Your task to perform on an android device: set the stopwatch Image 0: 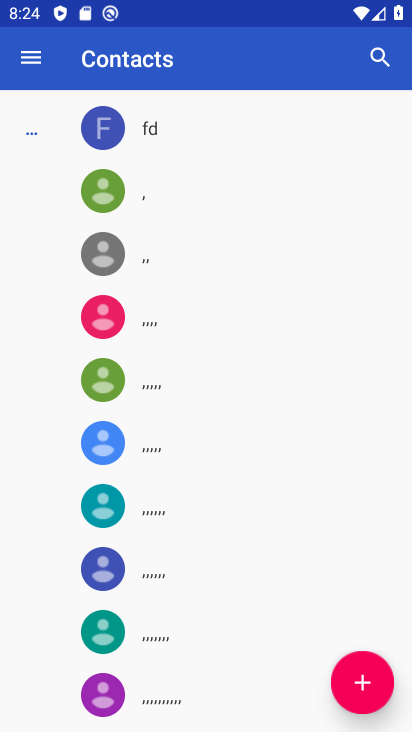
Step 0: press home button
Your task to perform on an android device: set the stopwatch Image 1: 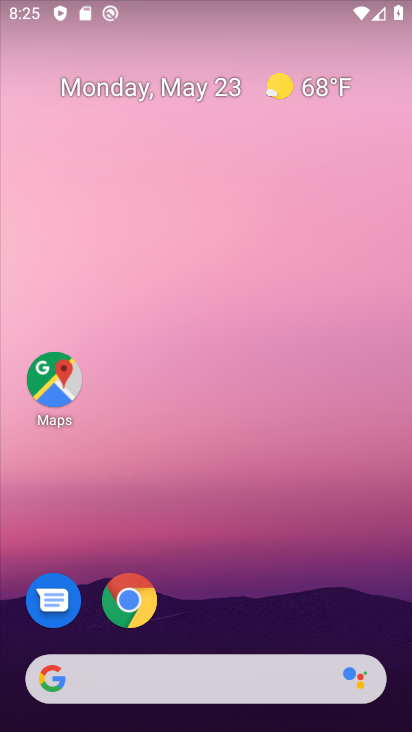
Step 1: drag from (45, 550) to (244, 145)
Your task to perform on an android device: set the stopwatch Image 2: 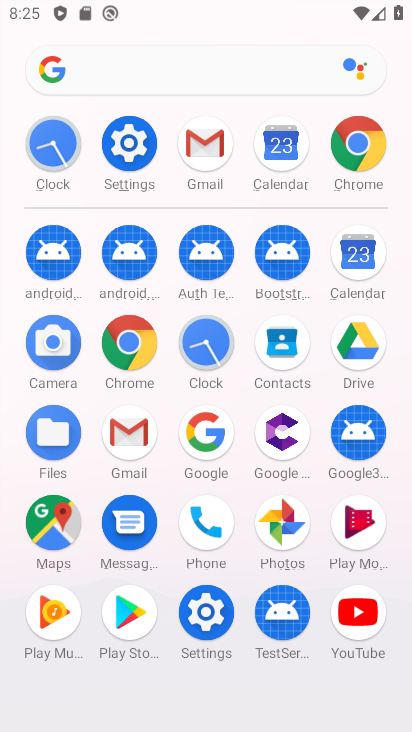
Step 2: click (43, 150)
Your task to perform on an android device: set the stopwatch Image 3: 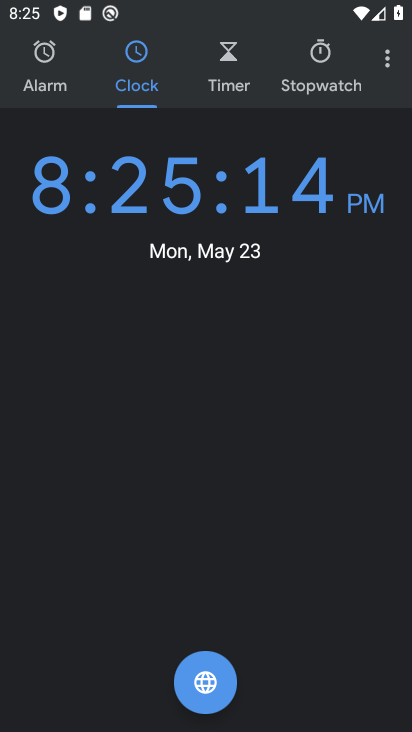
Step 3: click (309, 54)
Your task to perform on an android device: set the stopwatch Image 4: 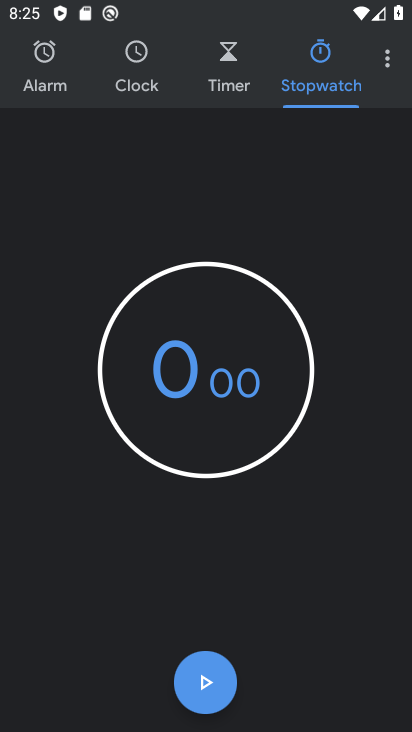
Step 4: click (196, 687)
Your task to perform on an android device: set the stopwatch Image 5: 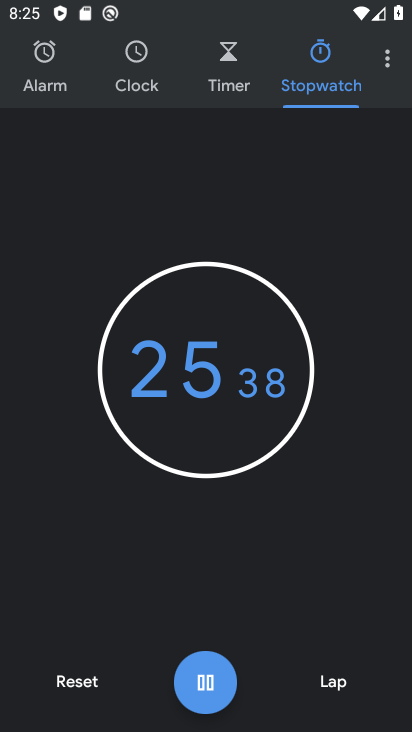
Step 5: task complete